Your task to perform on an android device: toggle javascript in the chrome app Image 0: 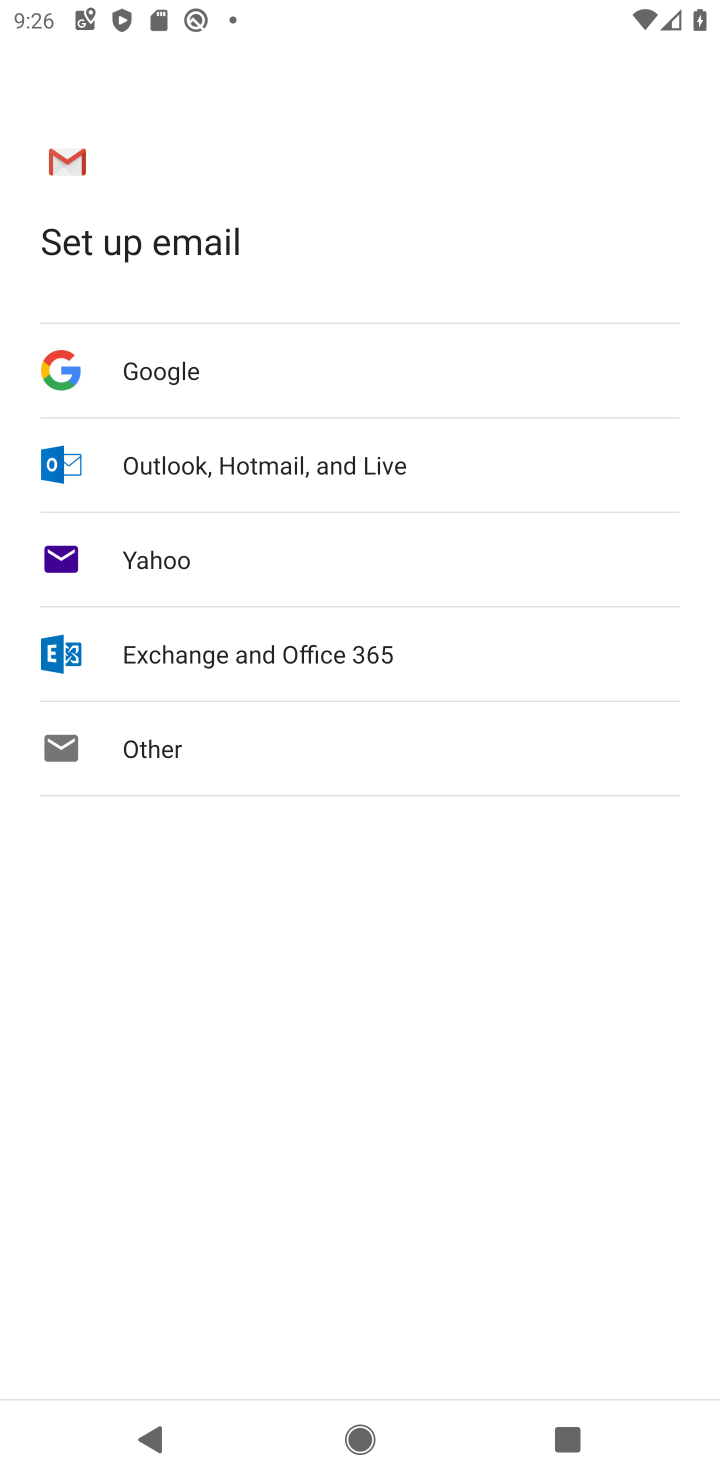
Step 0: press home button
Your task to perform on an android device: toggle javascript in the chrome app Image 1: 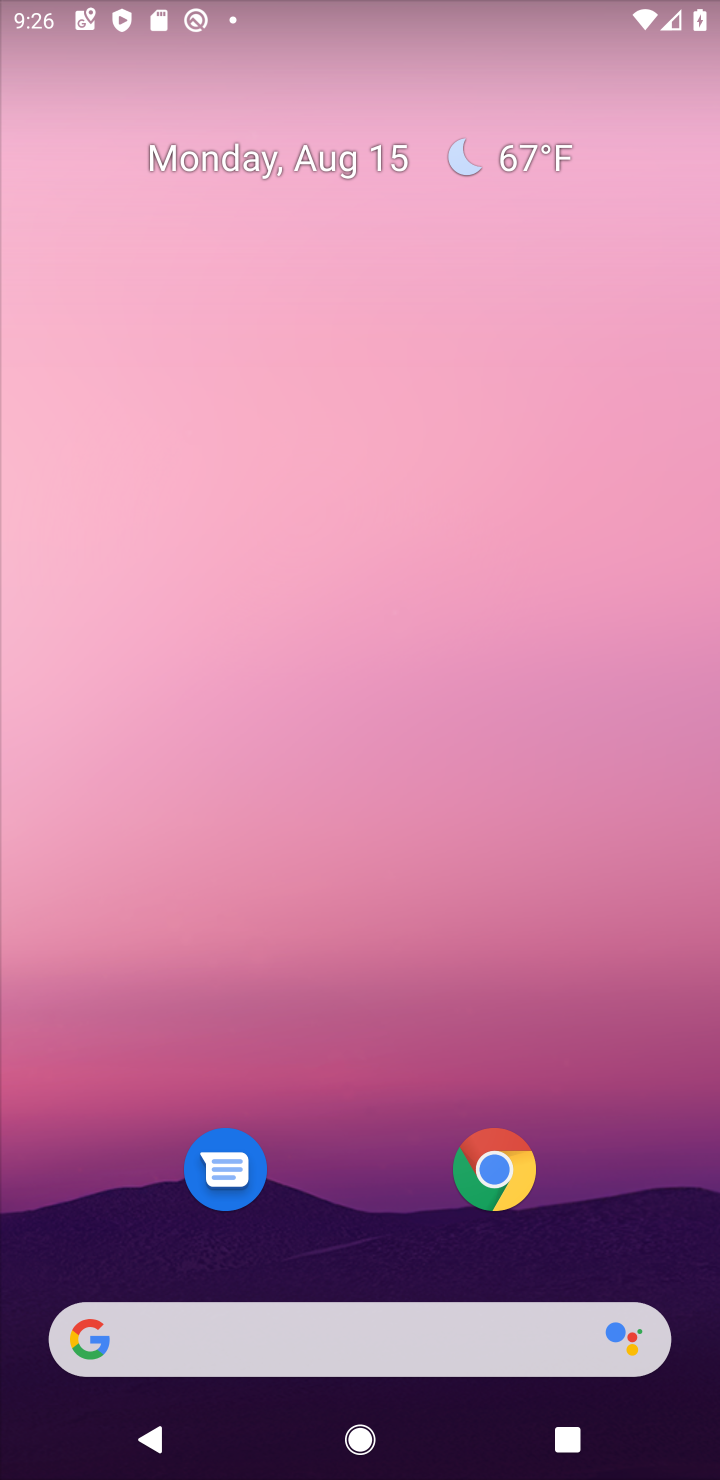
Step 1: click (491, 1168)
Your task to perform on an android device: toggle javascript in the chrome app Image 2: 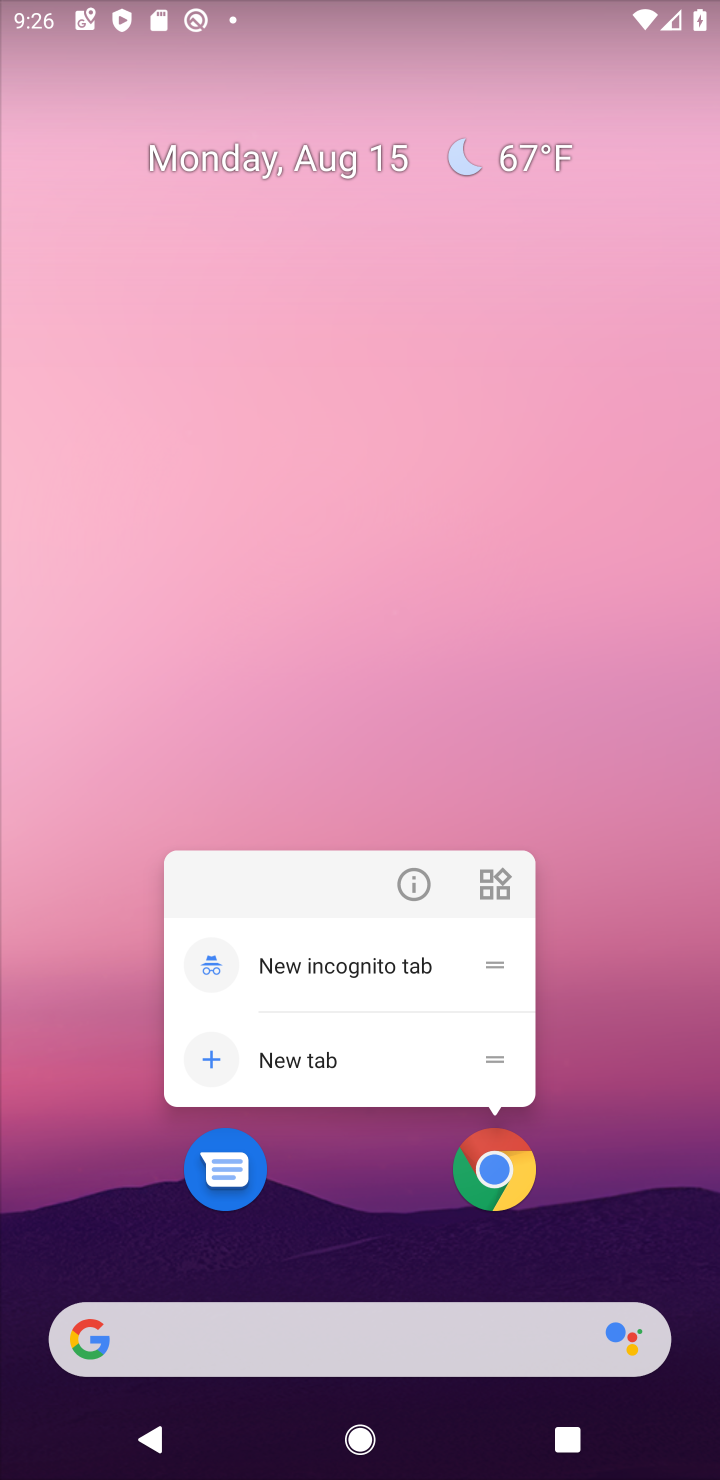
Step 2: click (501, 1166)
Your task to perform on an android device: toggle javascript in the chrome app Image 3: 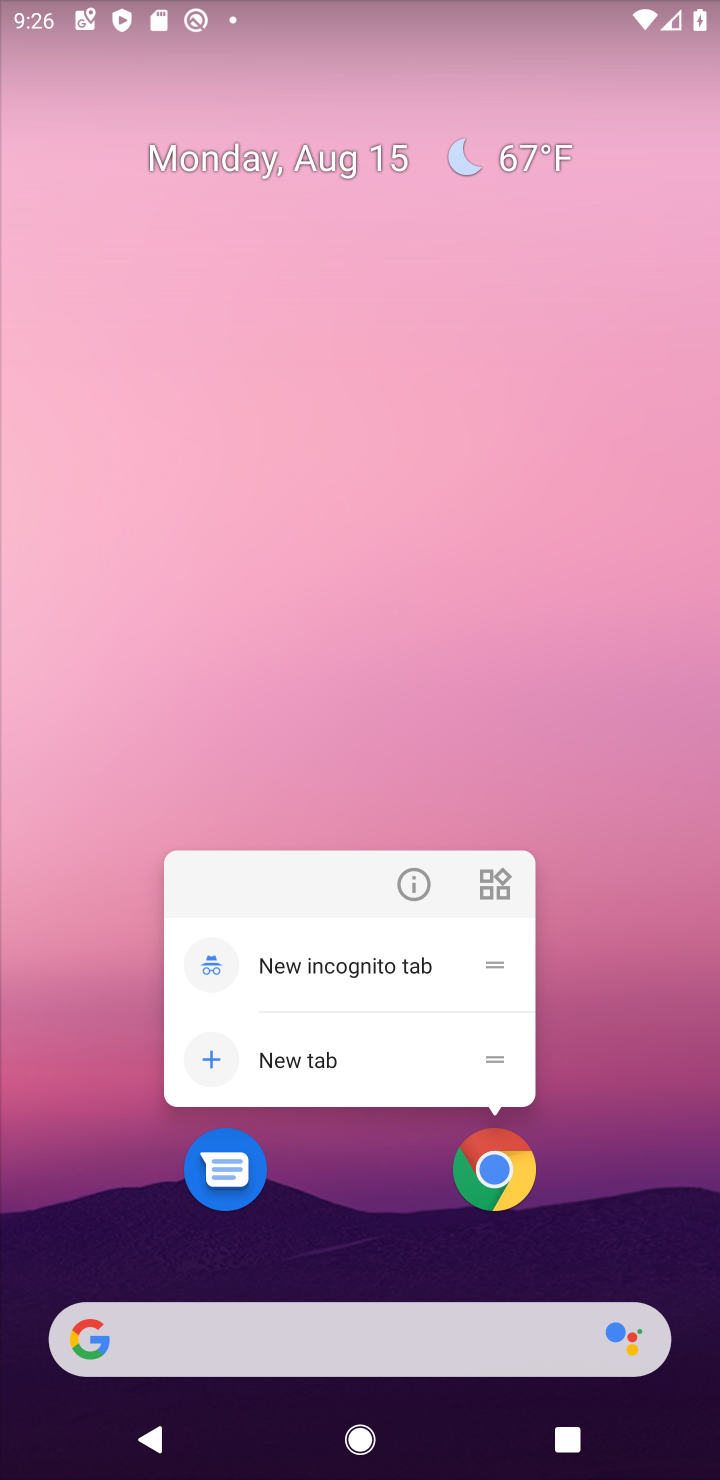
Step 3: click (505, 1174)
Your task to perform on an android device: toggle javascript in the chrome app Image 4: 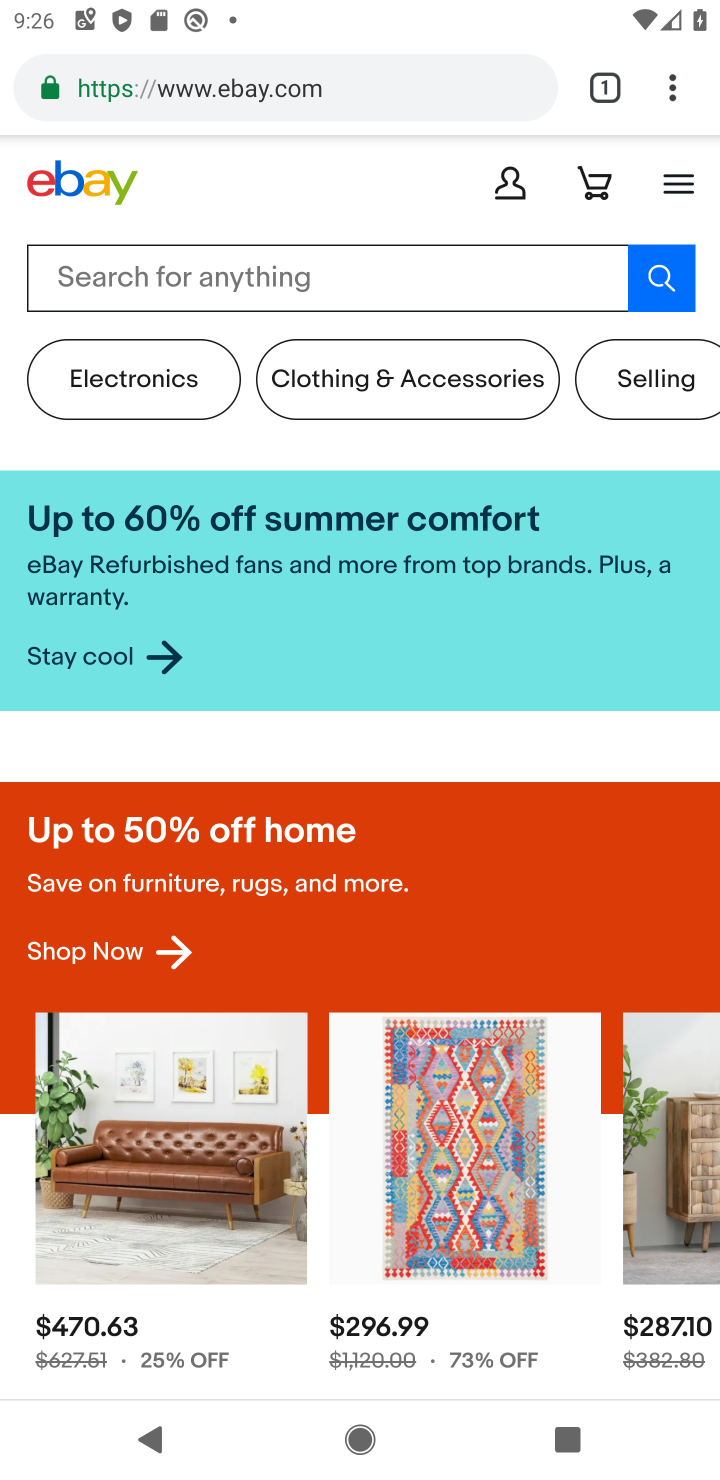
Step 4: drag from (667, 82) to (425, 1069)
Your task to perform on an android device: toggle javascript in the chrome app Image 5: 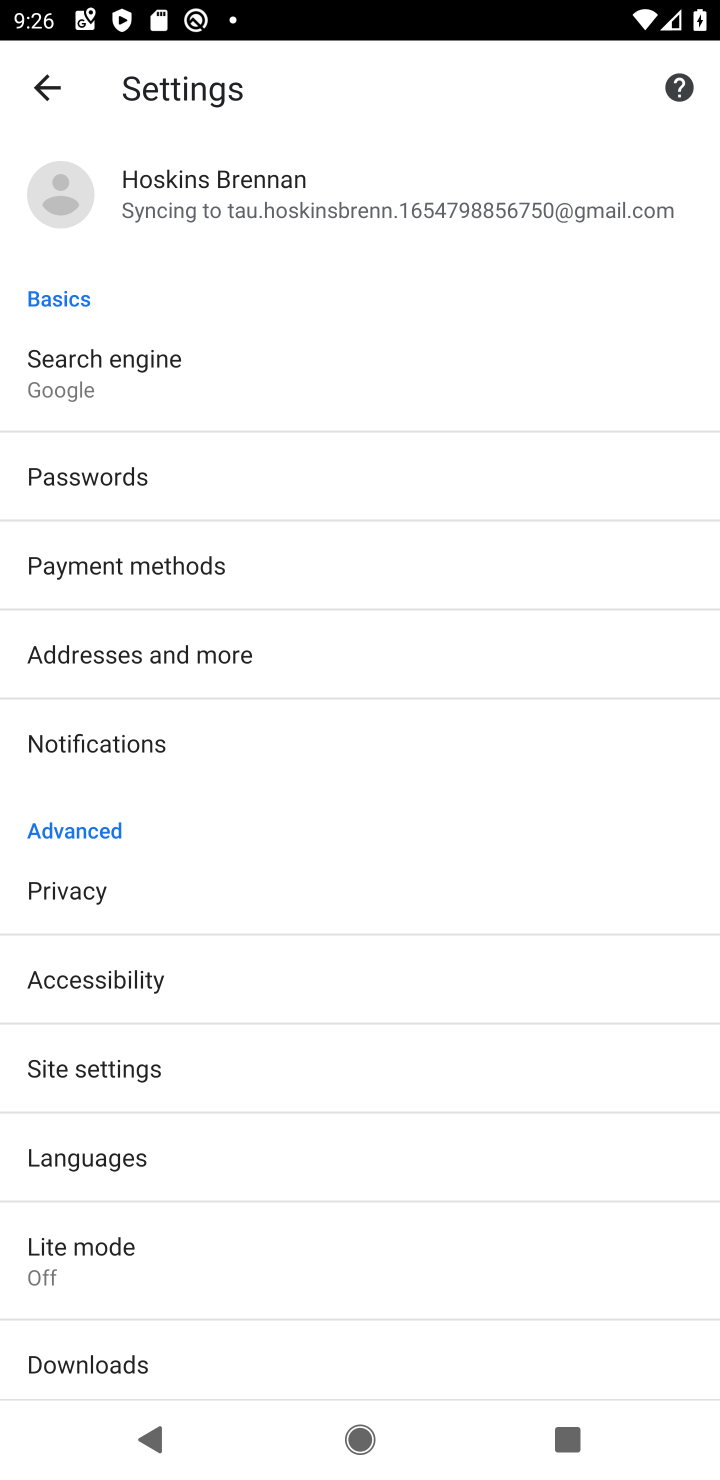
Step 5: click (104, 1062)
Your task to perform on an android device: toggle javascript in the chrome app Image 6: 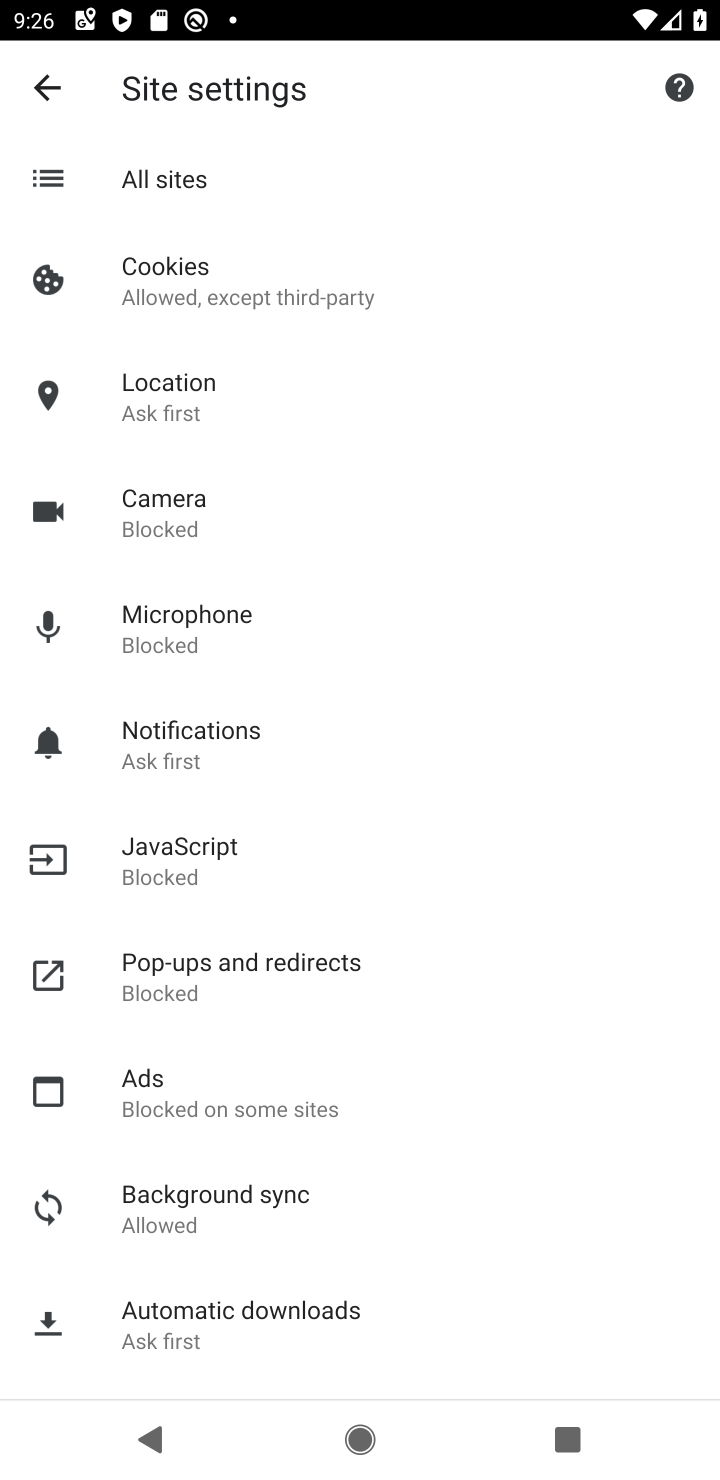
Step 6: click (189, 859)
Your task to perform on an android device: toggle javascript in the chrome app Image 7: 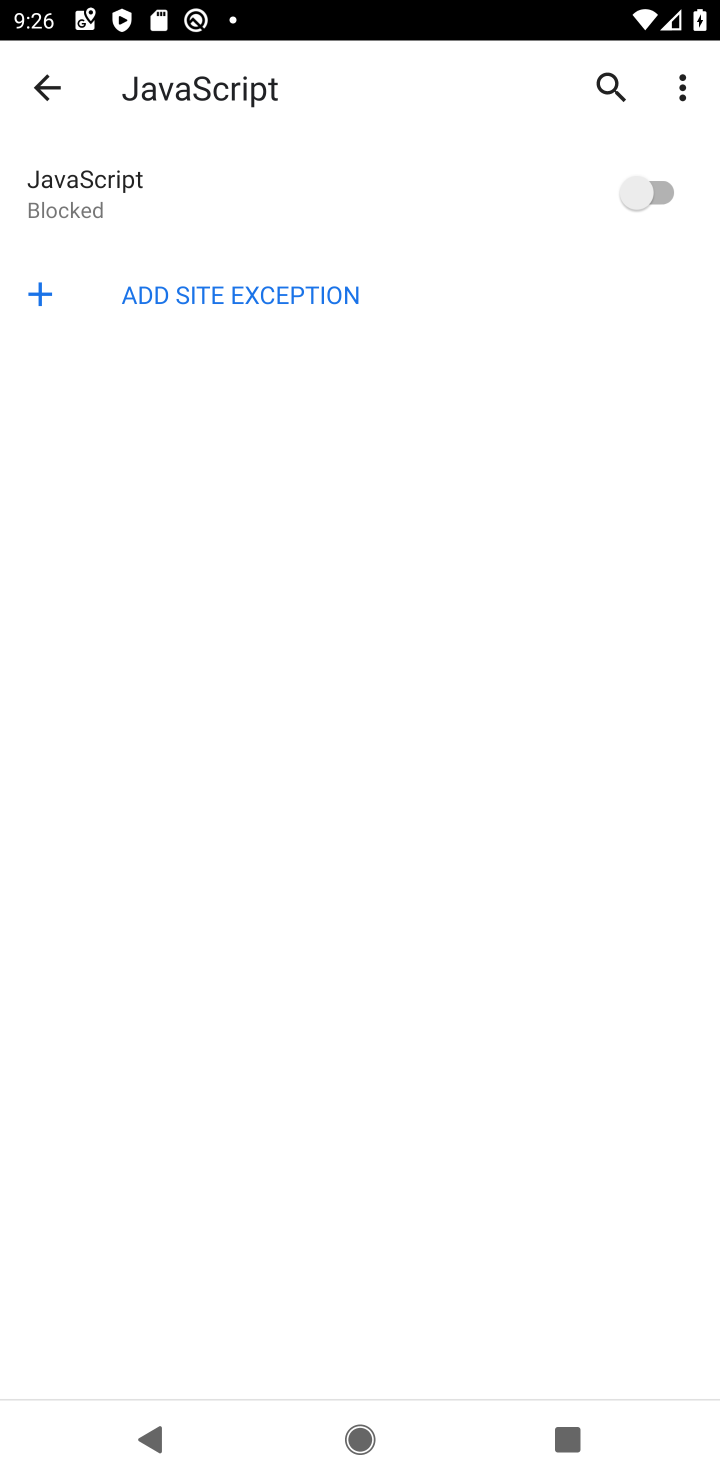
Step 7: click (672, 175)
Your task to perform on an android device: toggle javascript in the chrome app Image 8: 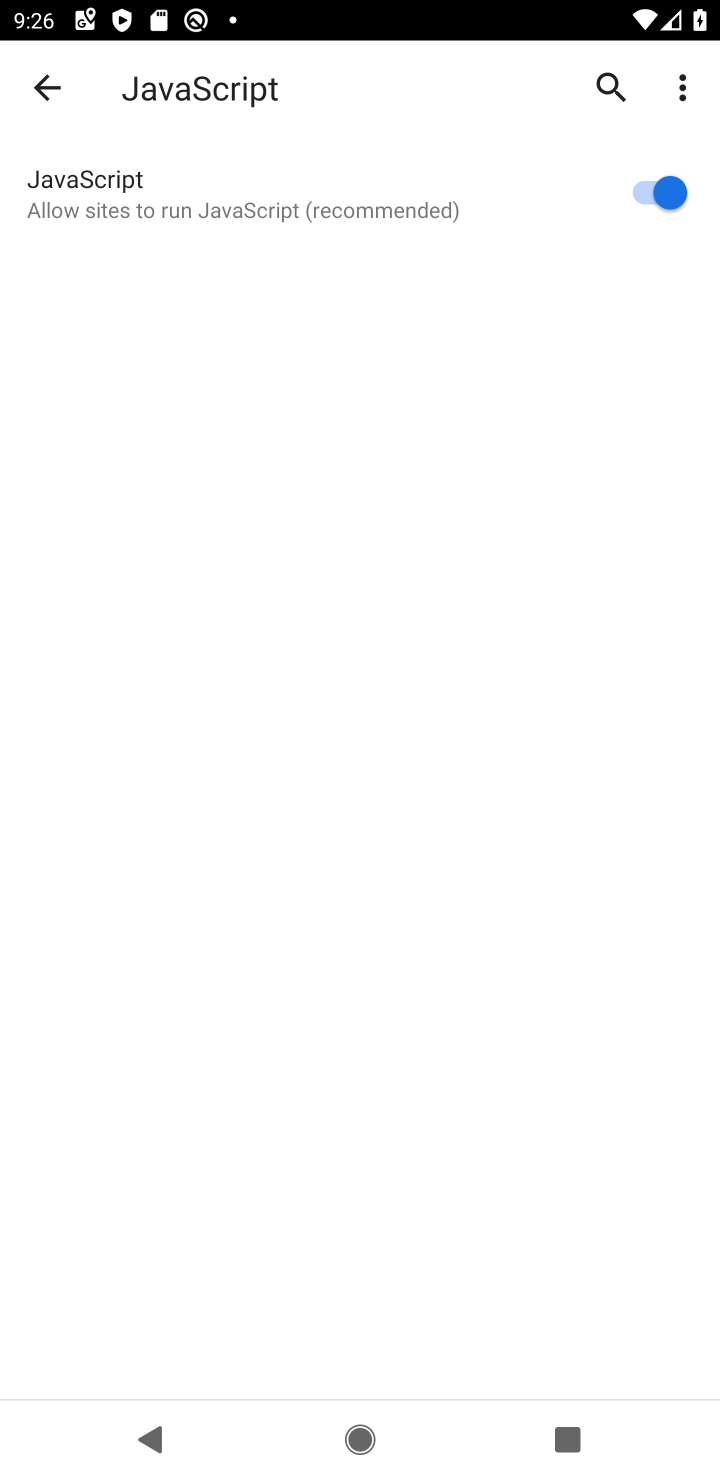
Step 8: task complete